Your task to perform on an android device: Go to location settings Image 0: 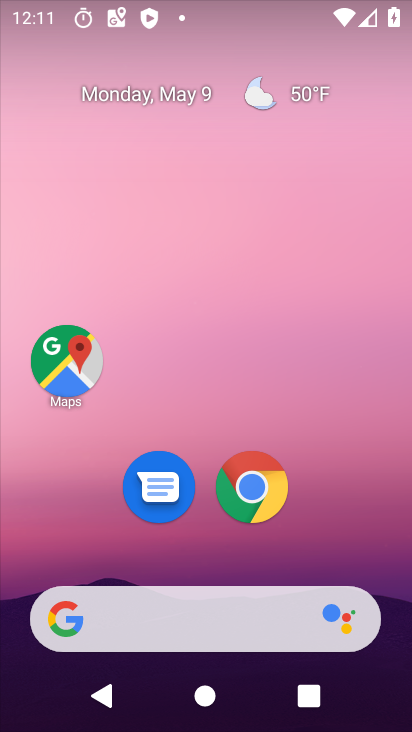
Step 0: drag from (327, 536) to (348, 154)
Your task to perform on an android device: Go to location settings Image 1: 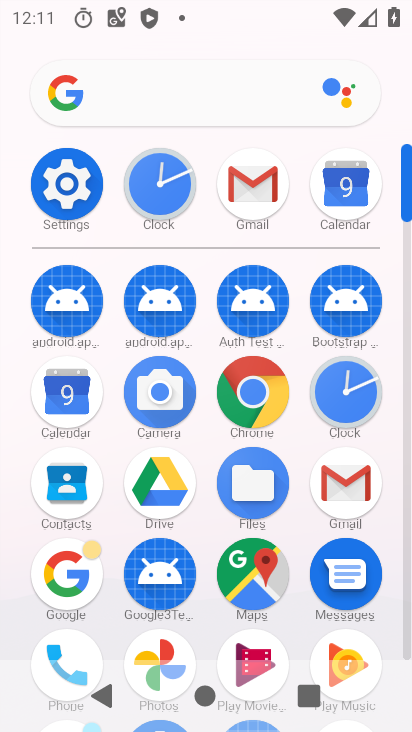
Step 1: click (57, 182)
Your task to perform on an android device: Go to location settings Image 2: 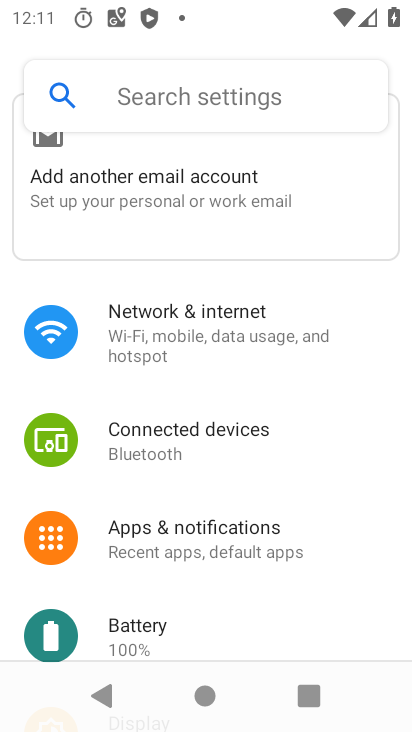
Step 2: drag from (236, 580) to (285, 270)
Your task to perform on an android device: Go to location settings Image 3: 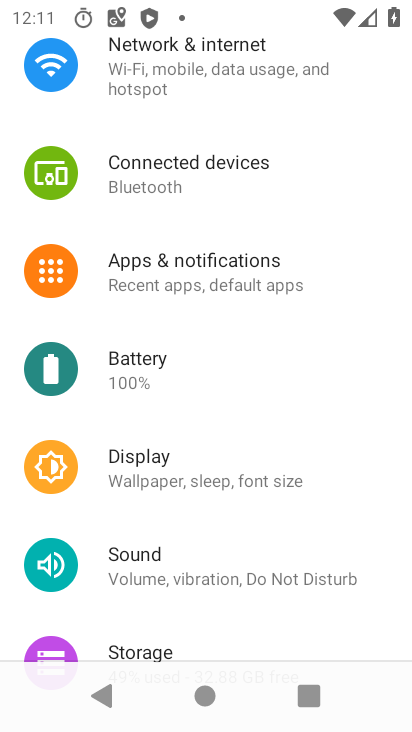
Step 3: drag from (263, 599) to (286, 269)
Your task to perform on an android device: Go to location settings Image 4: 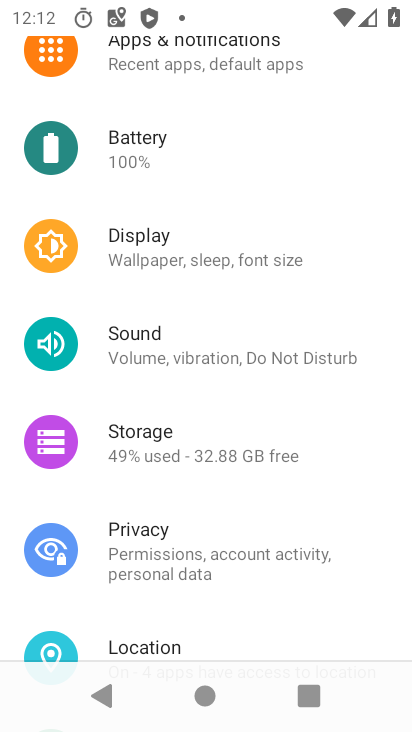
Step 4: click (177, 646)
Your task to perform on an android device: Go to location settings Image 5: 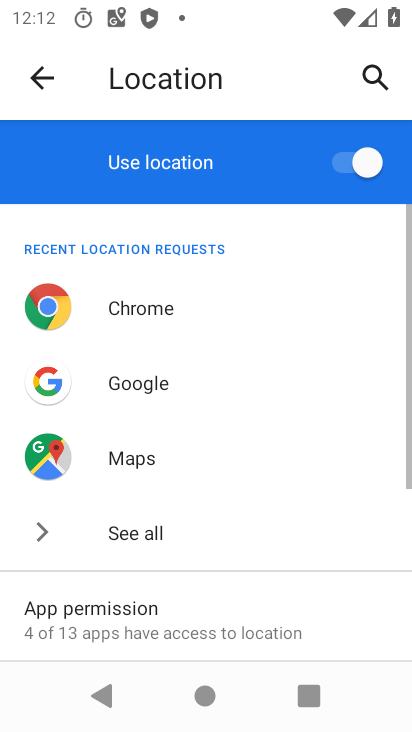
Step 5: task complete